Your task to perform on an android device: turn off improve location accuracy Image 0: 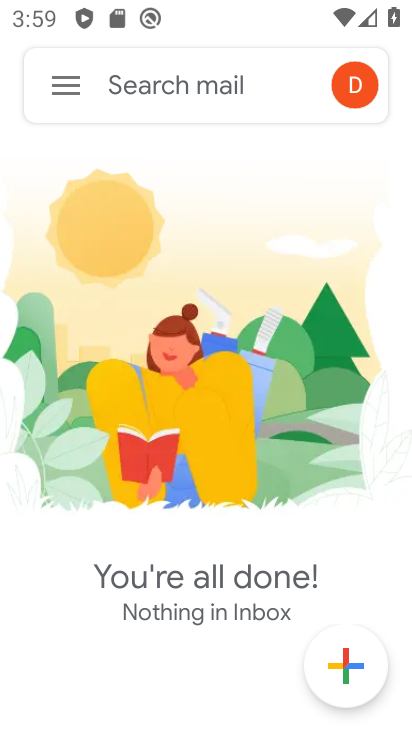
Step 0: press home button
Your task to perform on an android device: turn off improve location accuracy Image 1: 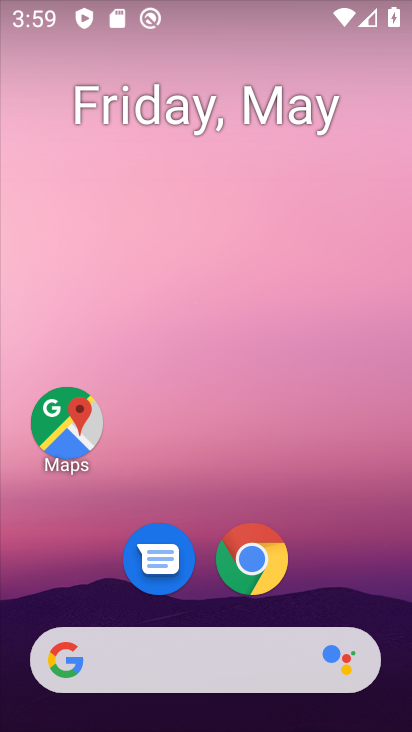
Step 1: drag from (306, 561) to (332, 152)
Your task to perform on an android device: turn off improve location accuracy Image 2: 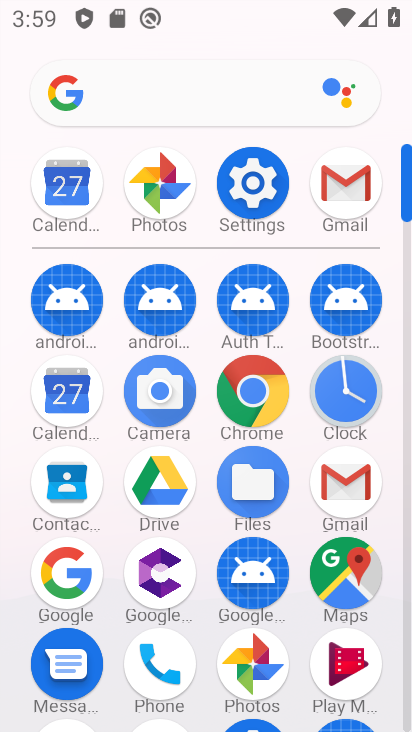
Step 2: click (274, 171)
Your task to perform on an android device: turn off improve location accuracy Image 3: 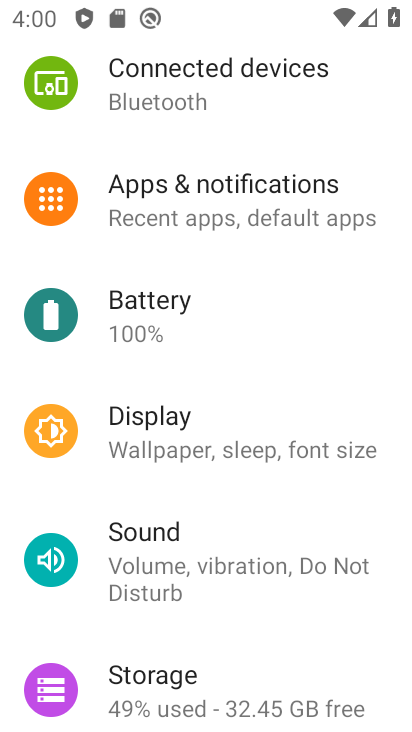
Step 3: drag from (190, 602) to (221, 197)
Your task to perform on an android device: turn off improve location accuracy Image 4: 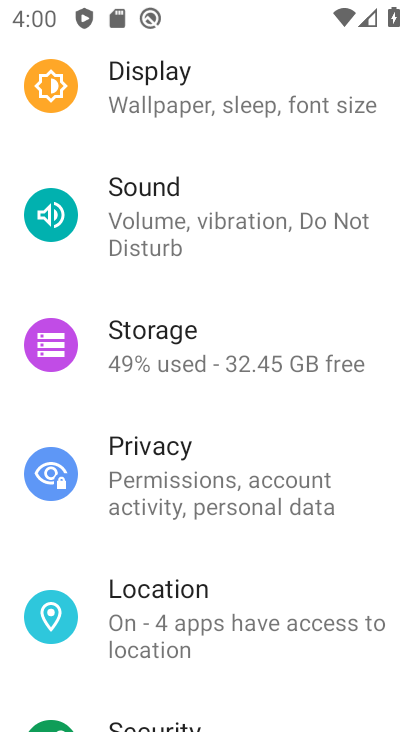
Step 4: click (181, 602)
Your task to perform on an android device: turn off improve location accuracy Image 5: 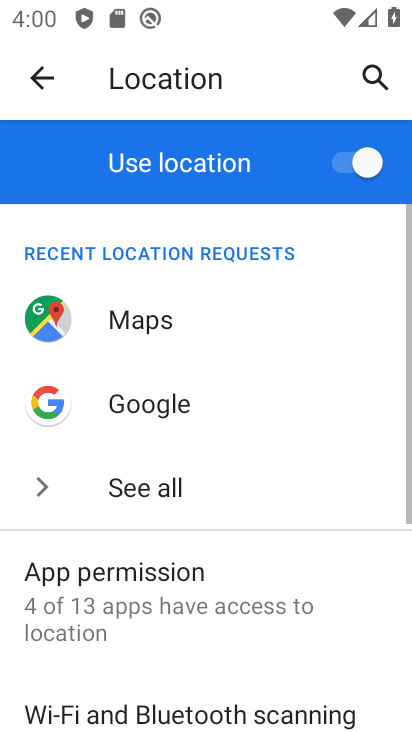
Step 5: drag from (187, 605) to (235, 189)
Your task to perform on an android device: turn off improve location accuracy Image 6: 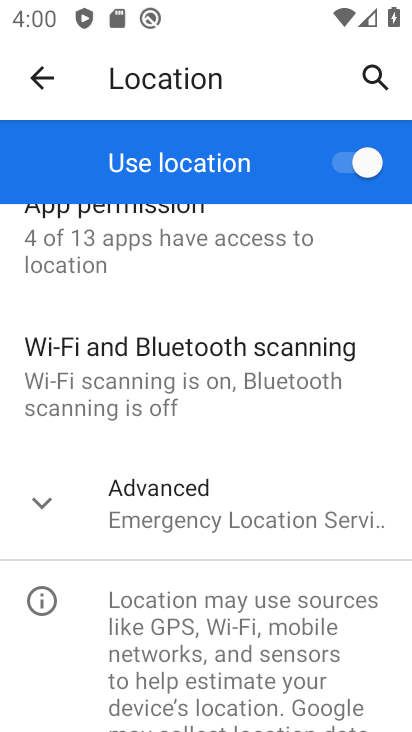
Step 6: click (230, 507)
Your task to perform on an android device: turn off improve location accuracy Image 7: 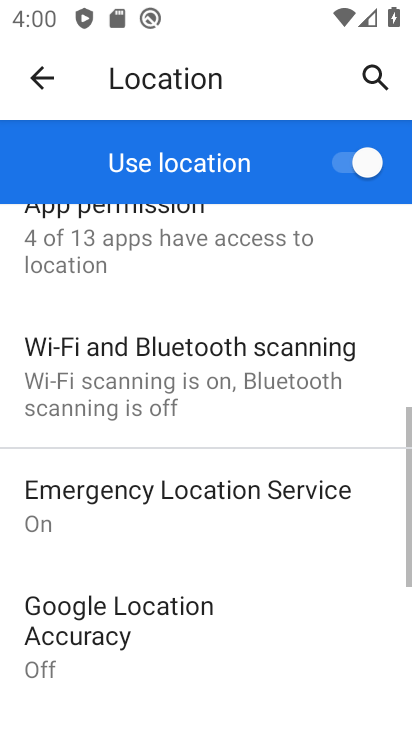
Step 7: drag from (202, 631) to (232, 267)
Your task to perform on an android device: turn off improve location accuracy Image 8: 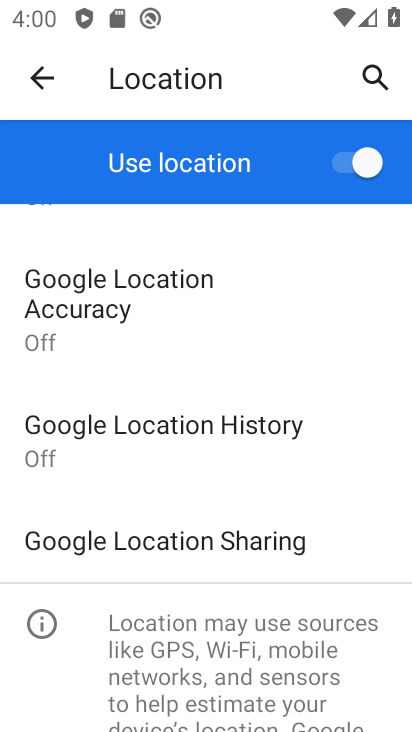
Step 8: click (215, 293)
Your task to perform on an android device: turn off improve location accuracy Image 9: 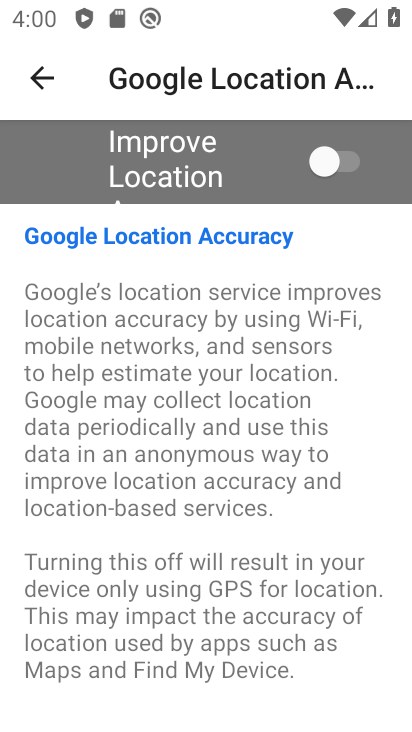
Step 9: task complete